Your task to perform on an android device: What is the recent news? Image 0: 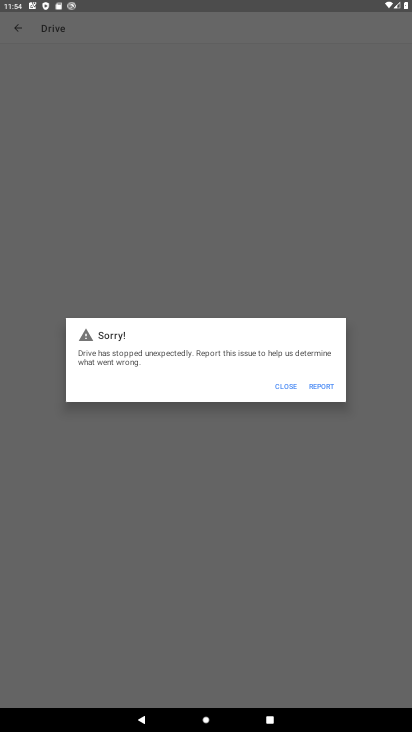
Step 0: press home button
Your task to perform on an android device: What is the recent news? Image 1: 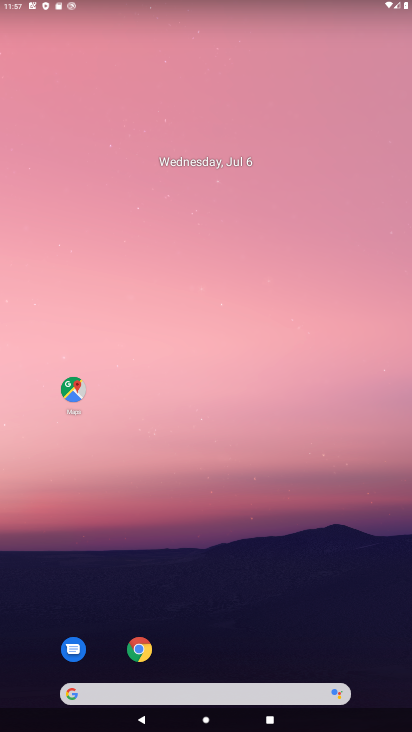
Step 1: drag from (363, 663) to (281, 180)
Your task to perform on an android device: What is the recent news? Image 2: 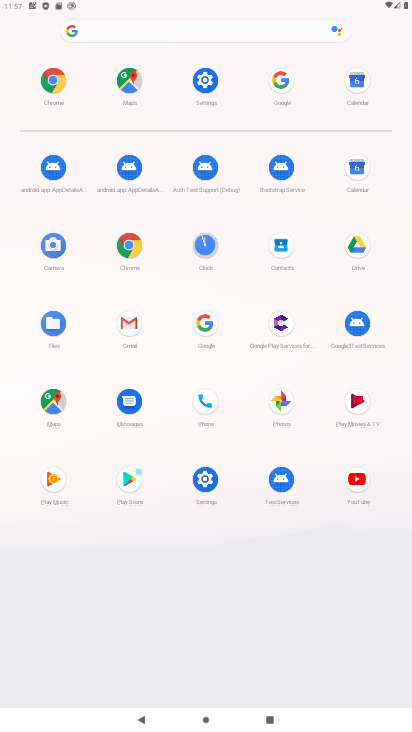
Step 2: click (212, 331)
Your task to perform on an android device: What is the recent news? Image 3: 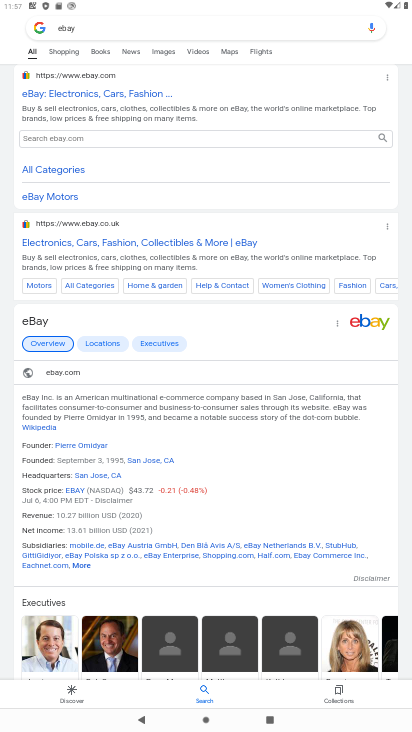
Step 3: press back button
Your task to perform on an android device: What is the recent news? Image 4: 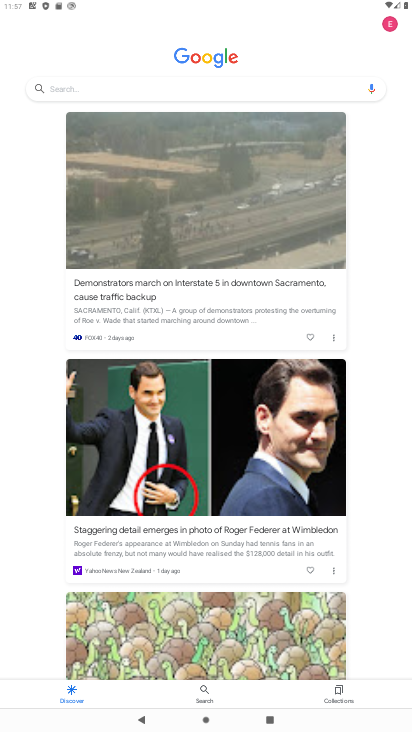
Step 4: click (143, 229)
Your task to perform on an android device: What is the recent news? Image 5: 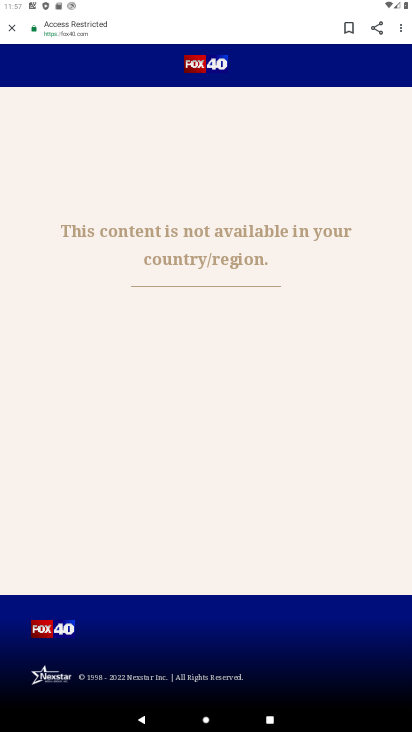
Step 5: task complete